Your task to perform on an android device: Add "usb-c" to the cart on costco Image 0: 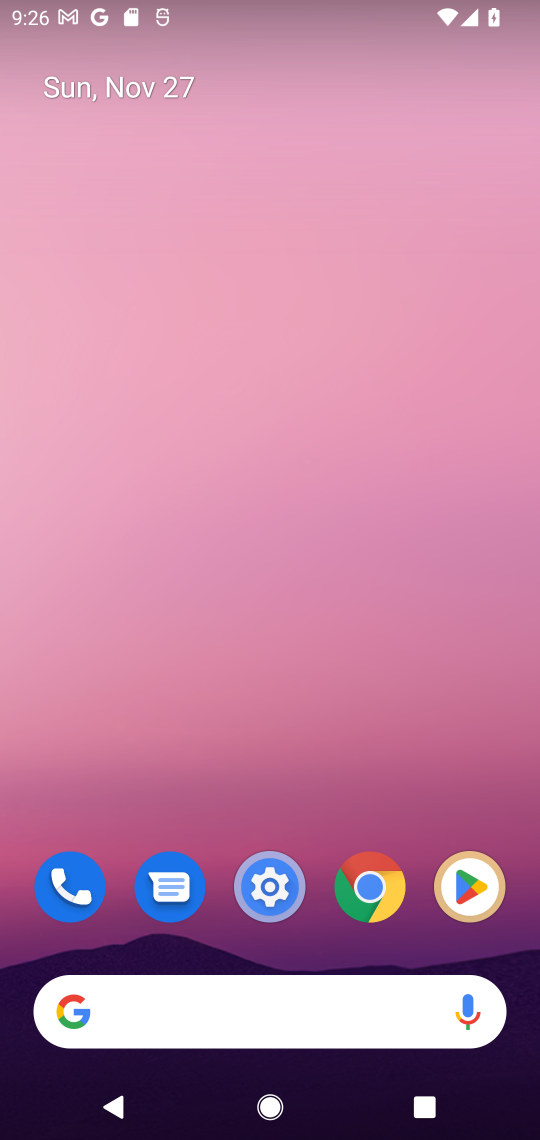
Step 0: click (256, 1012)
Your task to perform on an android device: Add "usb-c" to the cart on costco Image 1: 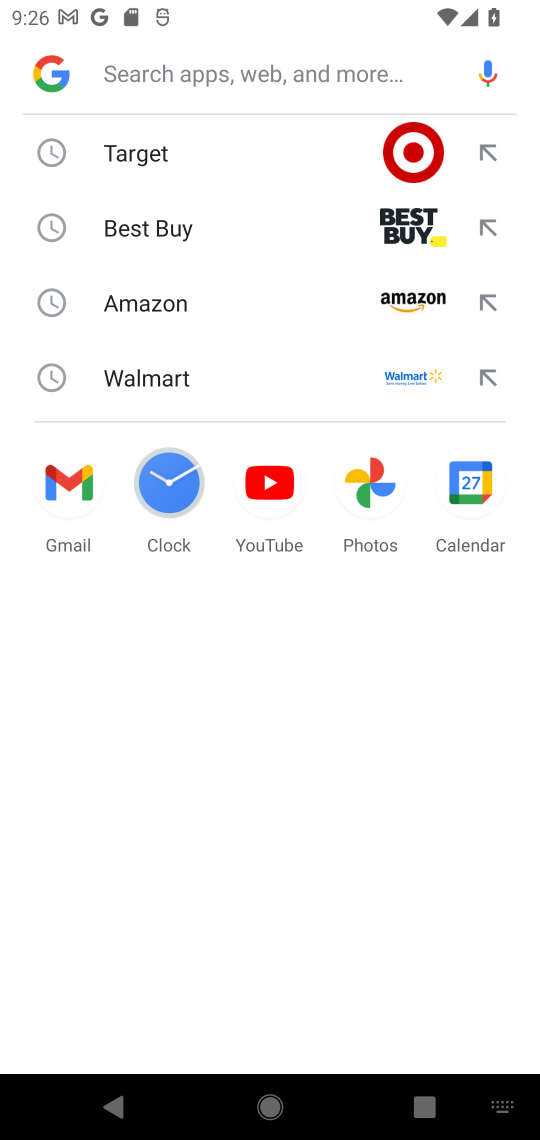
Step 1: type "costco"
Your task to perform on an android device: Add "usb-c" to the cart on costco Image 2: 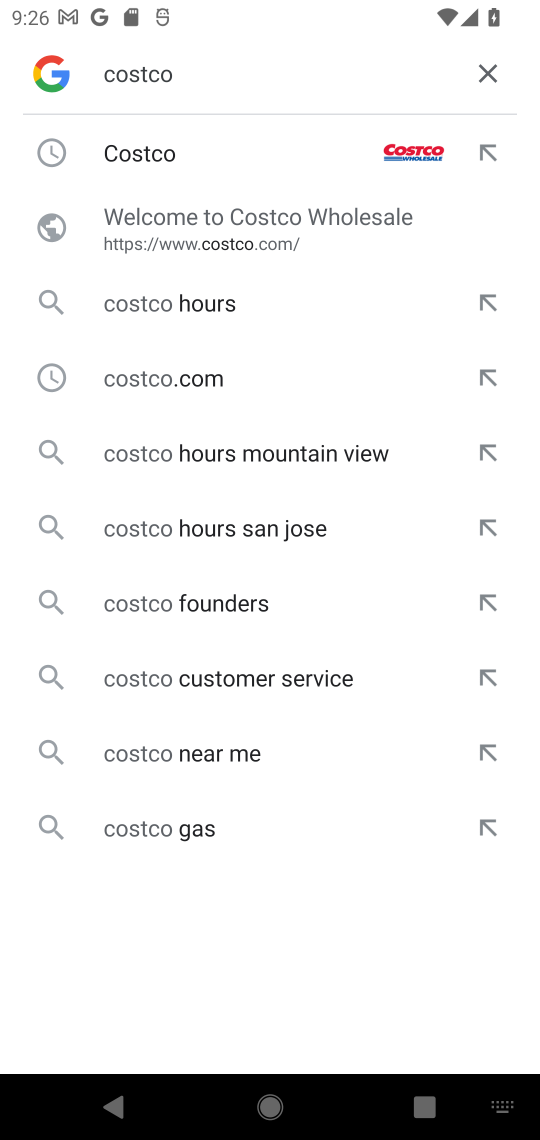
Step 2: click (127, 171)
Your task to perform on an android device: Add "usb-c" to the cart on costco Image 3: 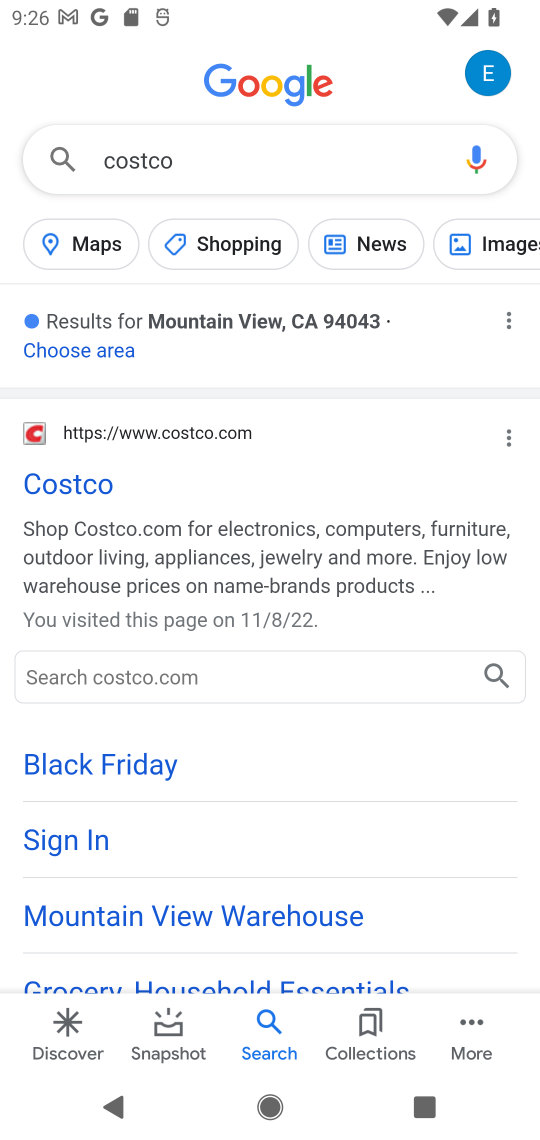
Step 3: click (128, 478)
Your task to perform on an android device: Add "usb-c" to the cart on costco Image 4: 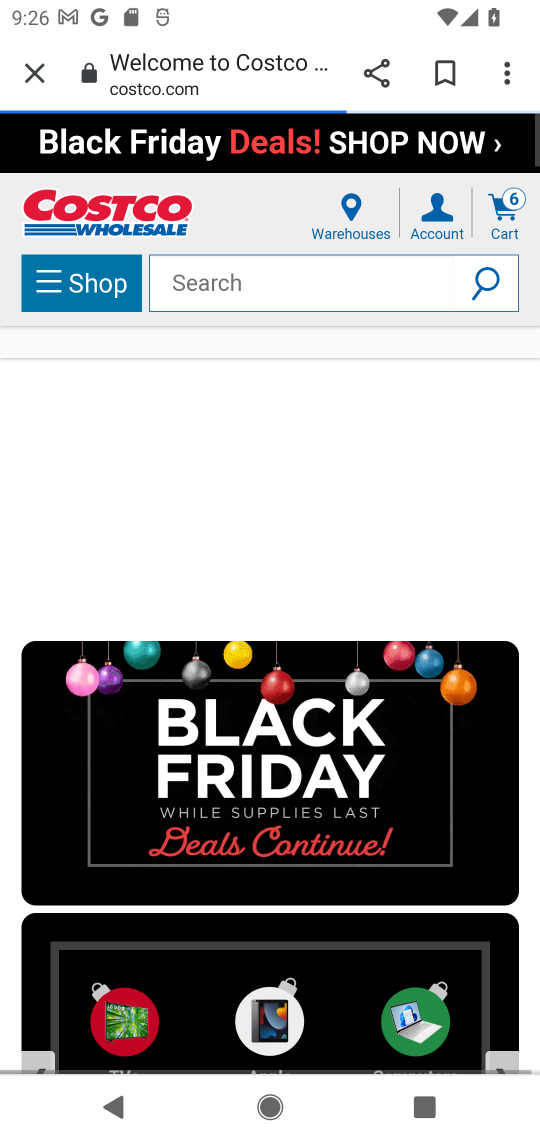
Step 4: click (239, 264)
Your task to perform on an android device: Add "usb-c" to the cart on costco Image 5: 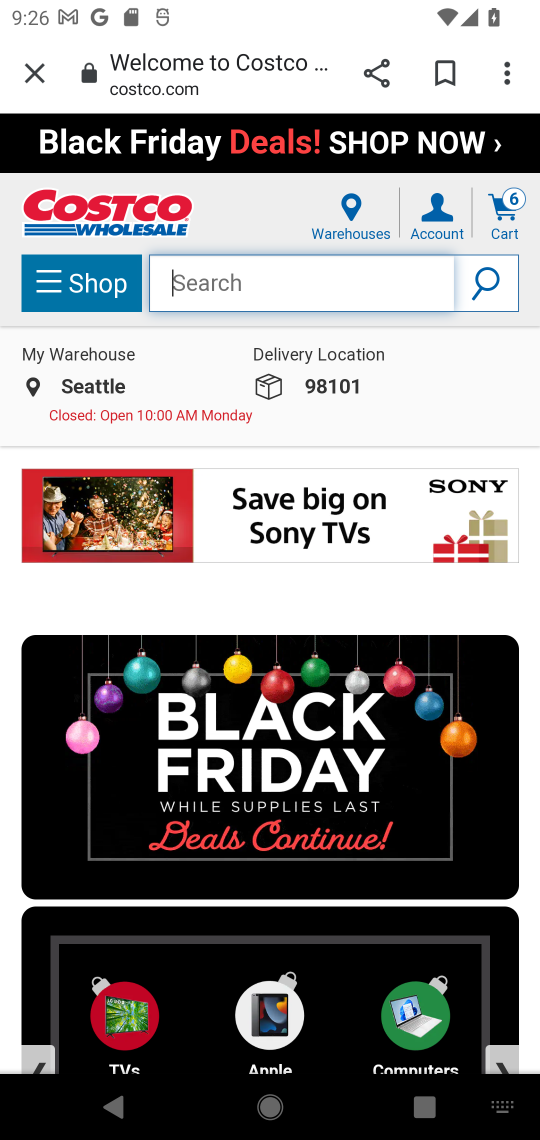
Step 5: type "usb-c"
Your task to perform on an android device: Add "usb-c" to the cart on costco Image 6: 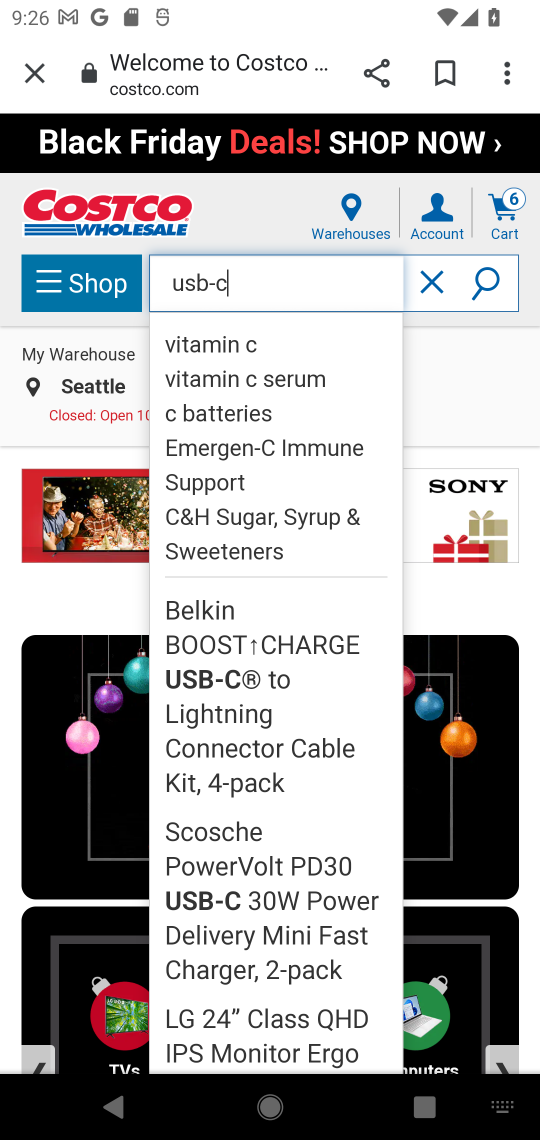
Step 6: click (497, 289)
Your task to perform on an android device: Add "usb-c" to the cart on costco Image 7: 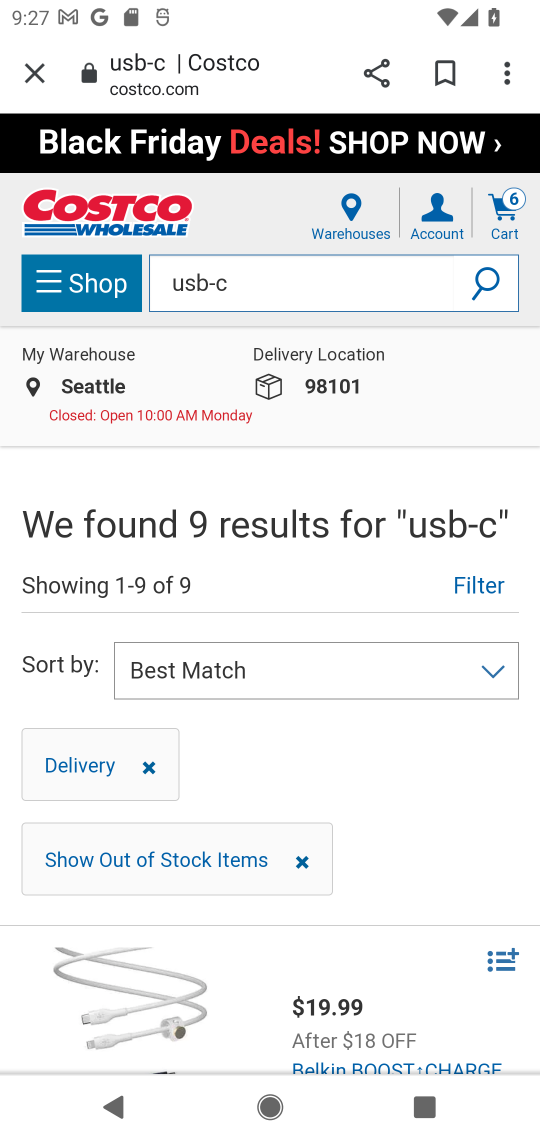
Step 7: task complete